Your task to perform on an android device: change text size in settings app Image 0: 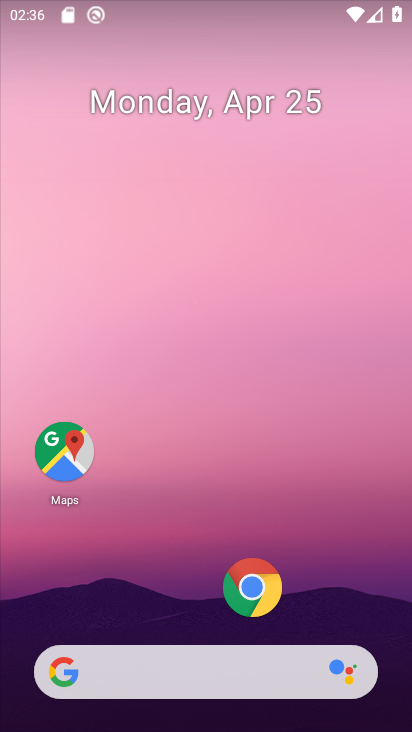
Step 0: drag from (196, 628) to (196, 62)
Your task to perform on an android device: change text size in settings app Image 1: 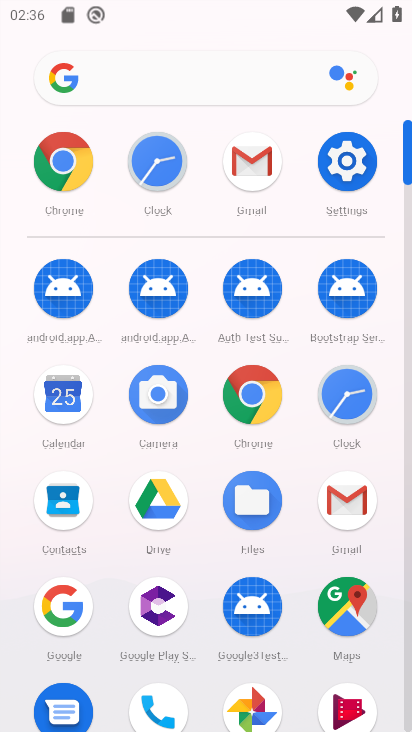
Step 1: click (344, 154)
Your task to perform on an android device: change text size in settings app Image 2: 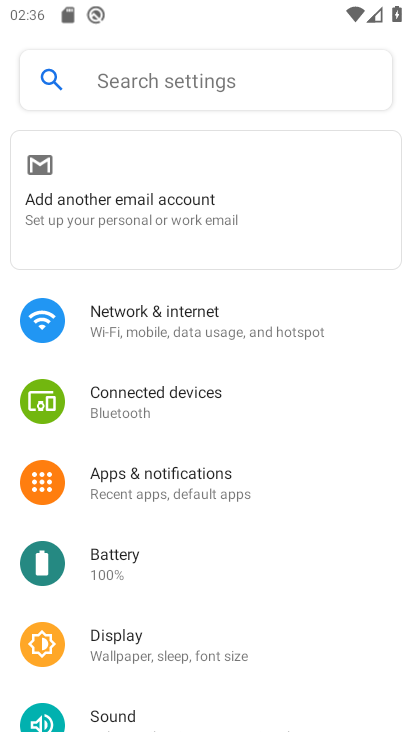
Step 2: click (155, 632)
Your task to perform on an android device: change text size in settings app Image 3: 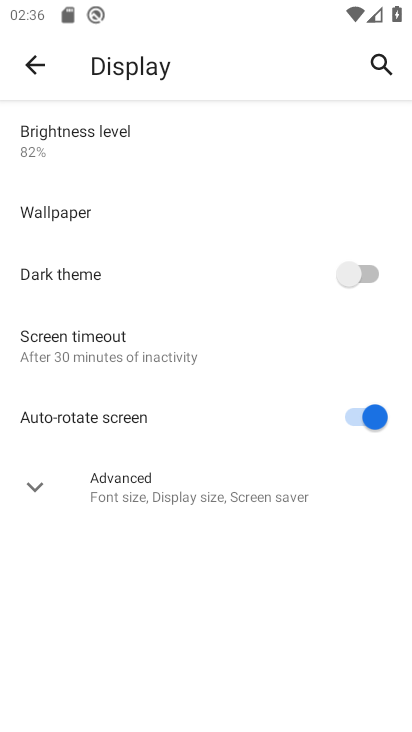
Step 3: click (34, 485)
Your task to perform on an android device: change text size in settings app Image 4: 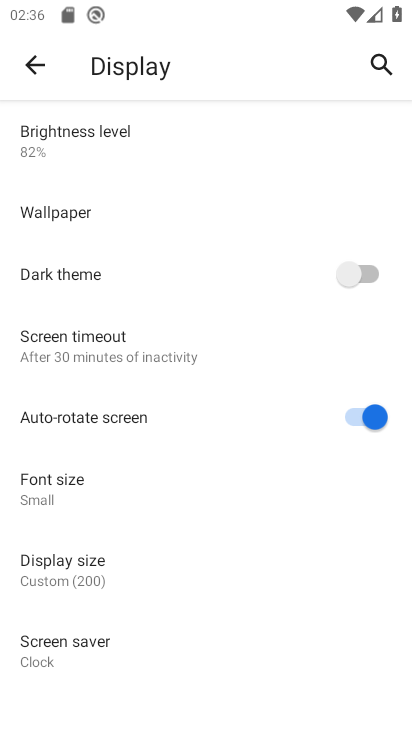
Step 4: click (84, 491)
Your task to perform on an android device: change text size in settings app Image 5: 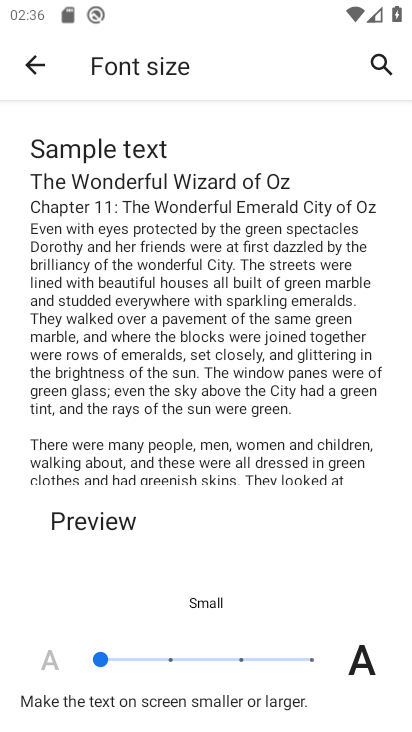
Step 5: click (165, 656)
Your task to perform on an android device: change text size in settings app Image 6: 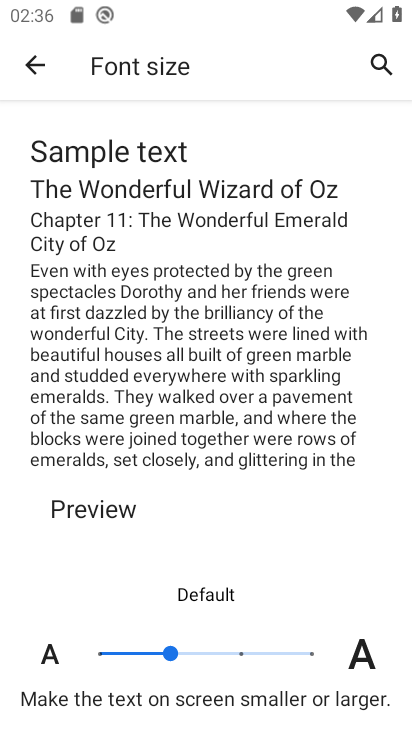
Step 6: task complete